Your task to perform on an android device: turn on improve location accuracy Image 0: 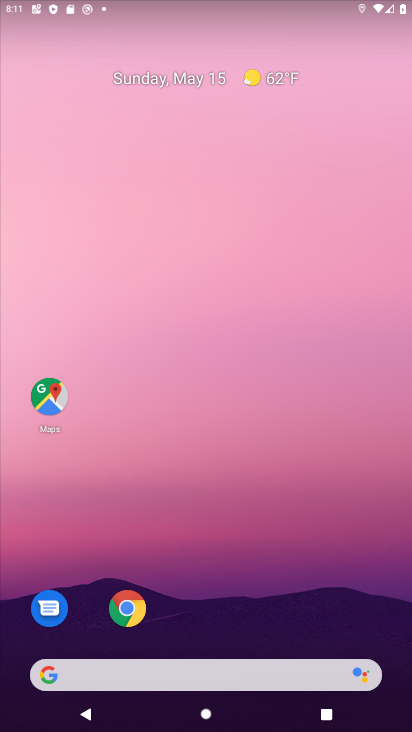
Step 0: drag from (268, 650) to (106, 60)
Your task to perform on an android device: turn on improve location accuracy Image 1: 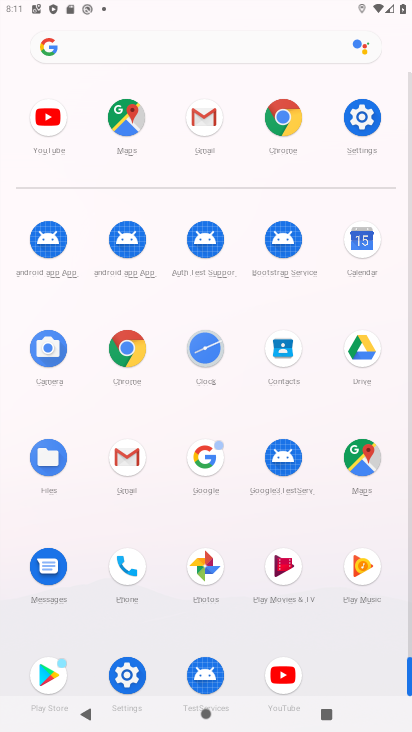
Step 1: click (365, 123)
Your task to perform on an android device: turn on improve location accuracy Image 2: 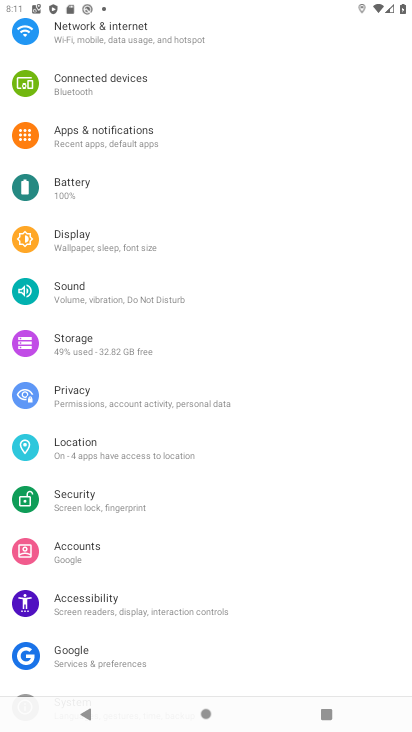
Step 2: click (80, 455)
Your task to perform on an android device: turn on improve location accuracy Image 3: 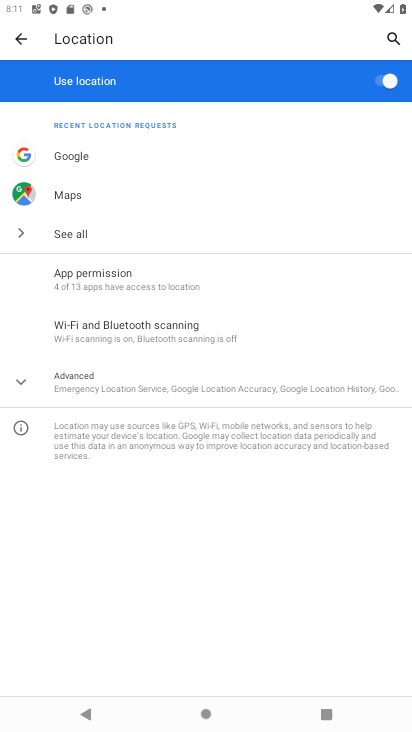
Step 3: task complete